Your task to perform on an android device: Is it going to rain today? Image 0: 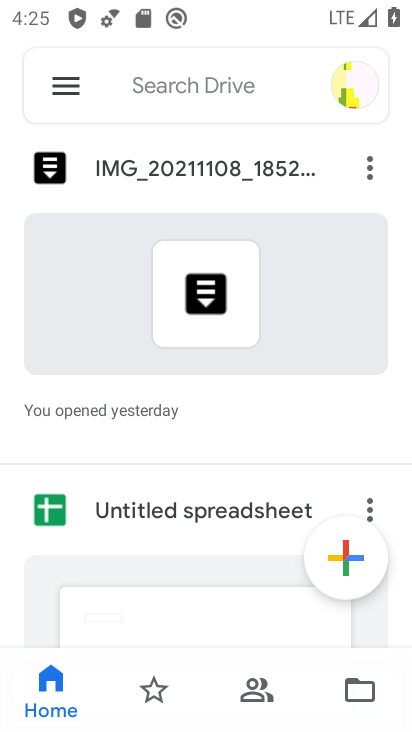
Step 0: press home button
Your task to perform on an android device: Is it going to rain today? Image 1: 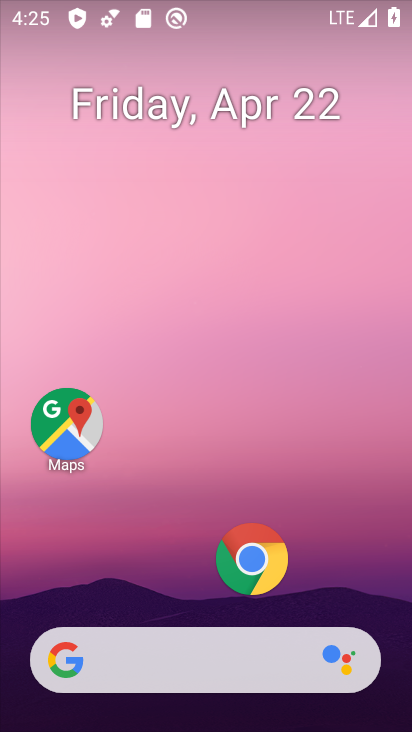
Step 1: click (154, 677)
Your task to perform on an android device: Is it going to rain today? Image 2: 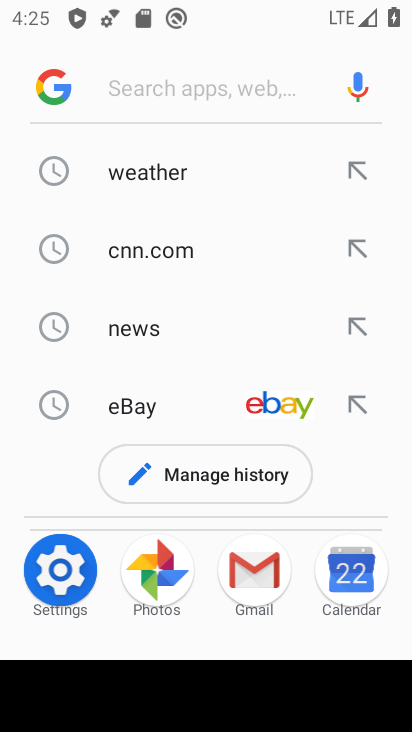
Step 2: click (125, 175)
Your task to perform on an android device: Is it going to rain today? Image 3: 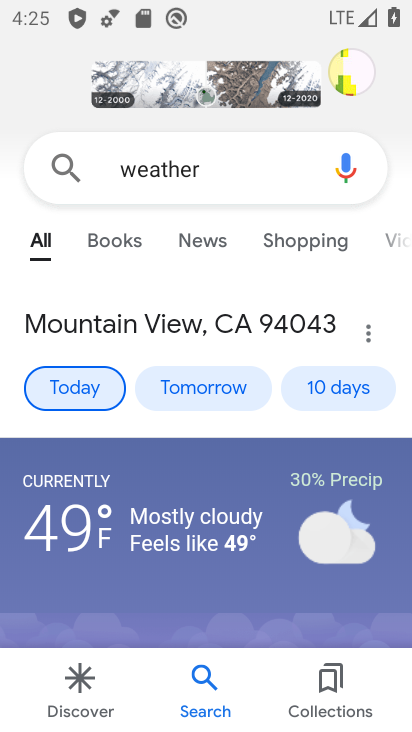
Step 3: task complete